Your task to perform on an android device: What's the news in Nepal? Image 0: 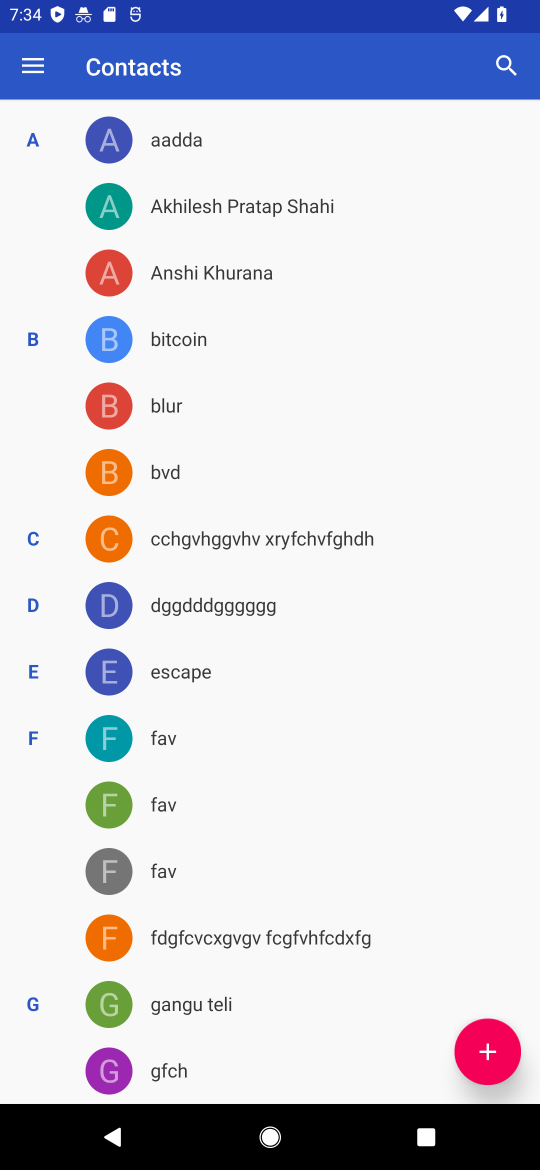
Step 0: press home button
Your task to perform on an android device: What's the news in Nepal? Image 1: 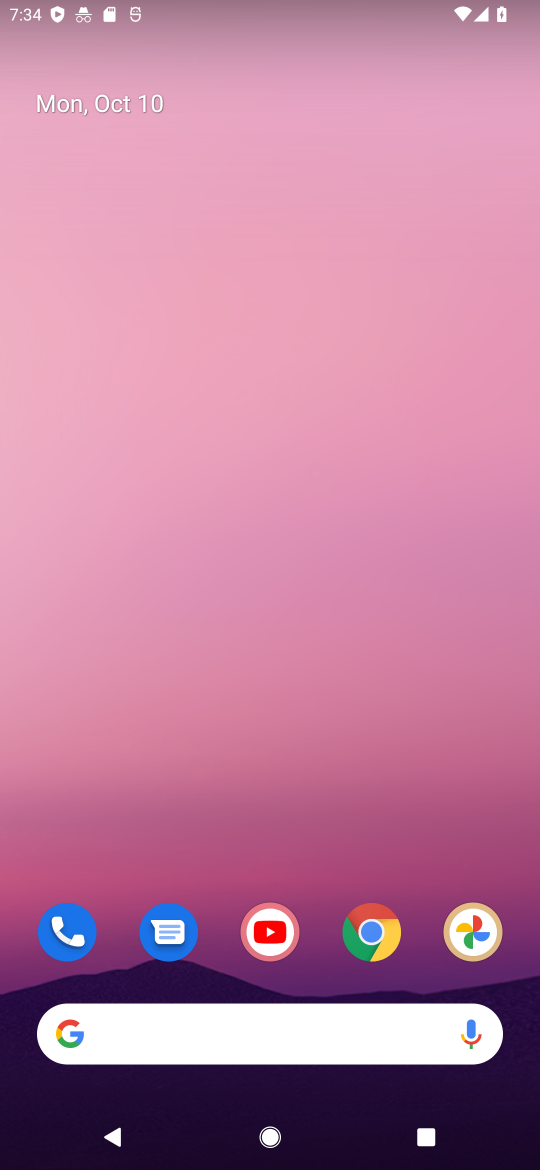
Step 1: drag from (325, 971) to (452, 216)
Your task to perform on an android device: What's the news in Nepal? Image 2: 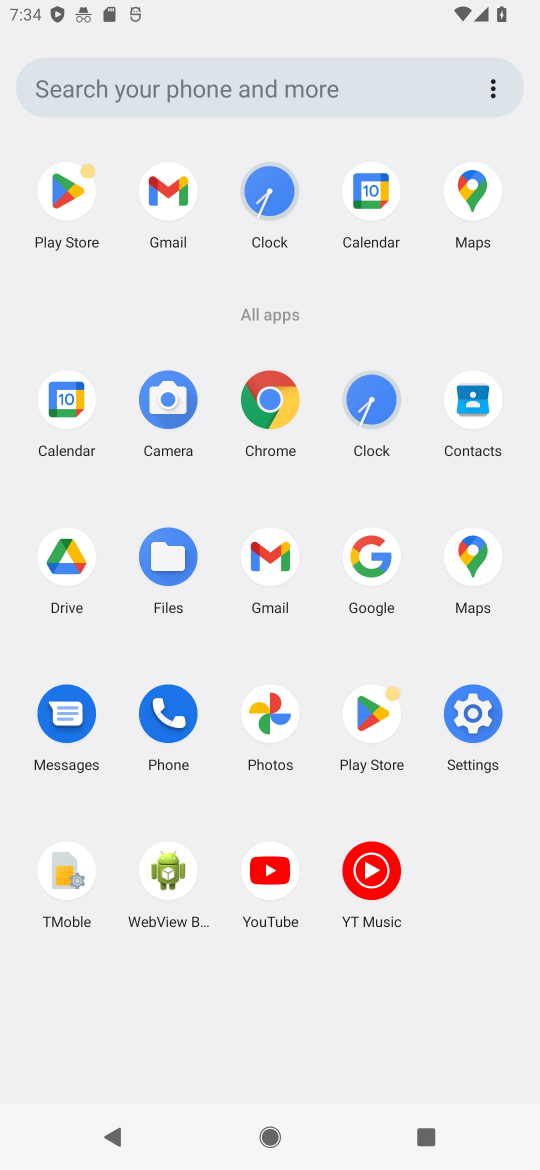
Step 2: click (278, 400)
Your task to perform on an android device: What's the news in Nepal? Image 3: 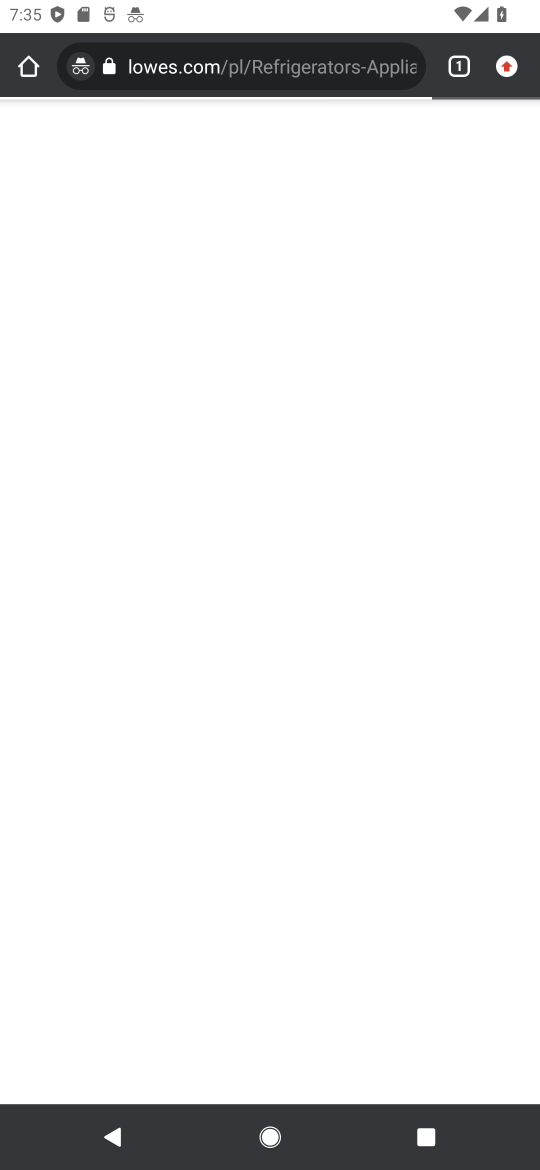
Step 3: click (263, 78)
Your task to perform on an android device: What's the news in Nepal? Image 4: 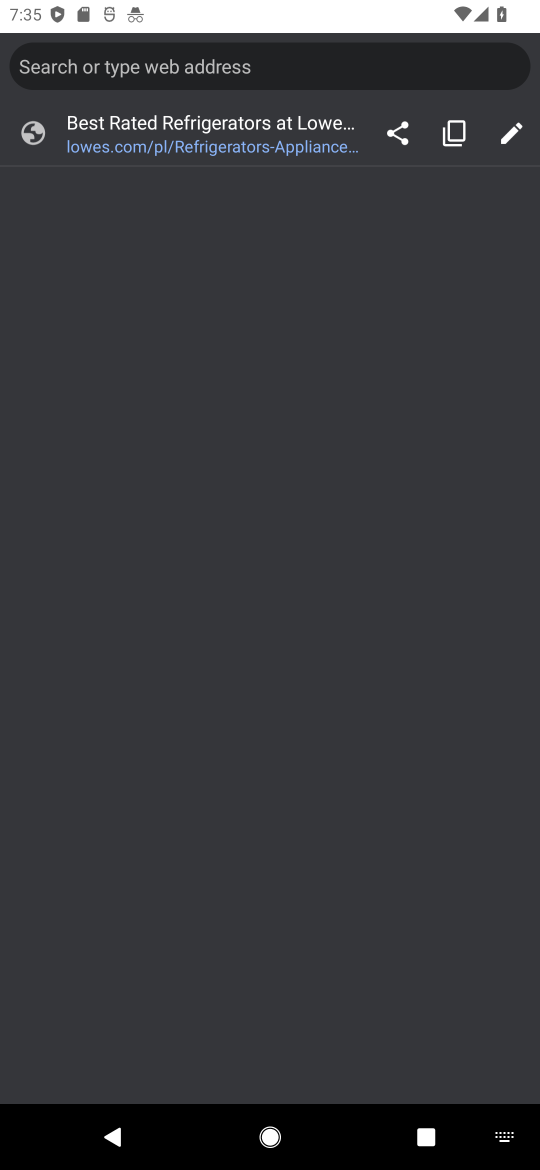
Step 4: type "What's the news in Nepal?"
Your task to perform on an android device: What's the news in Nepal? Image 5: 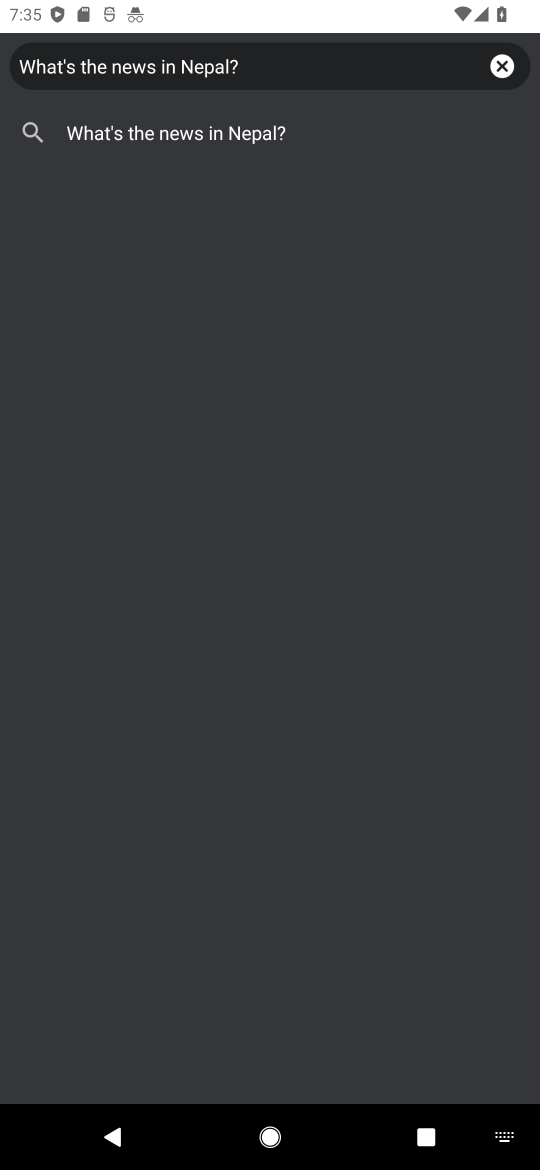
Step 5: press enter
Your task to perform on an android device: What's the news in Nepal? Image 6: 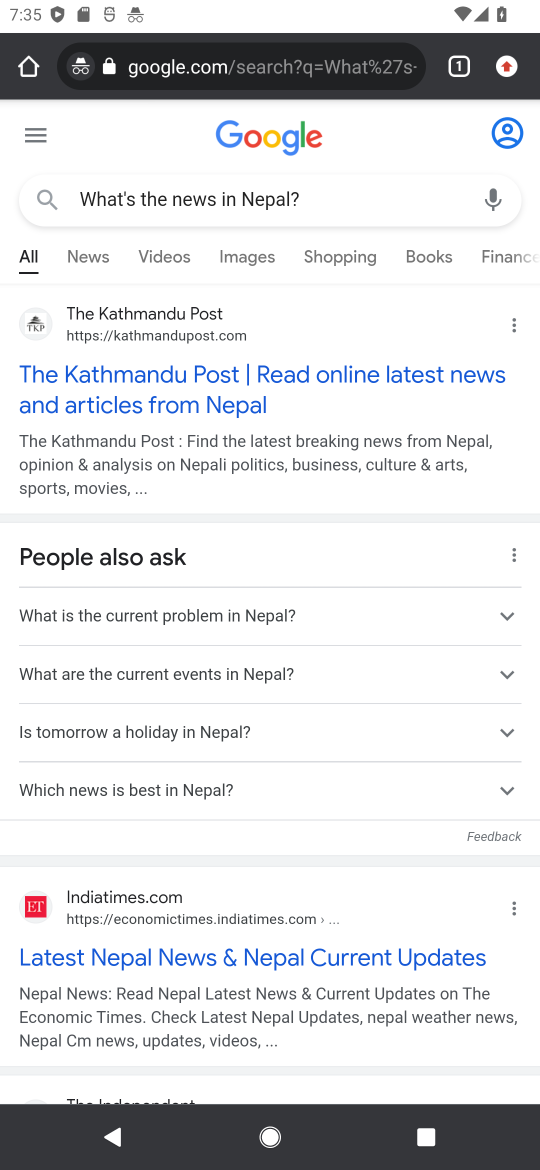
Step 6: click (196, 381)
Your task to perform on an android device: What's the news in Nepal? Image 7: 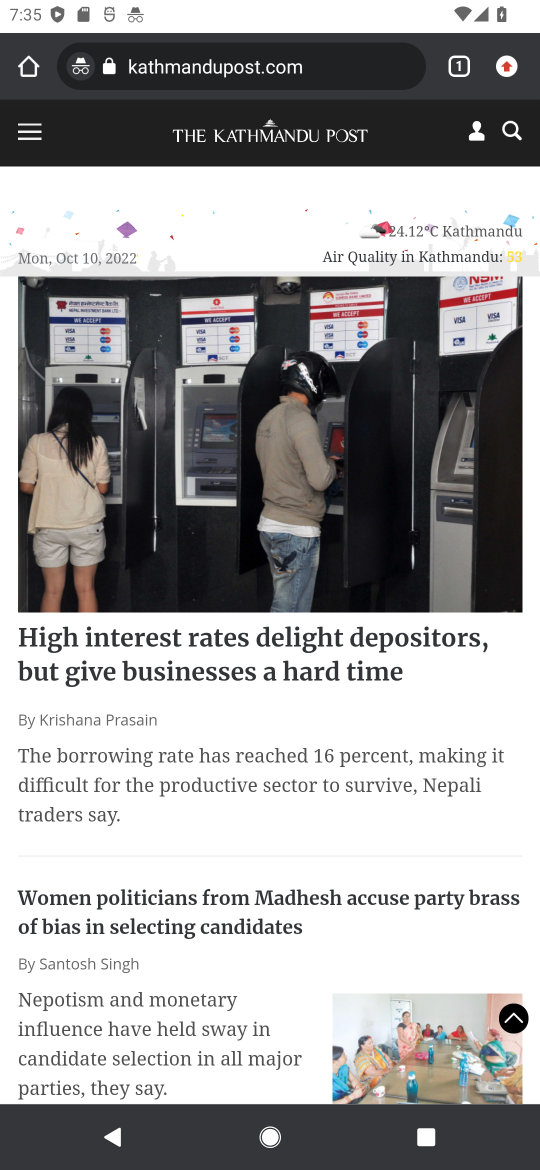
Step 7: task complete